Your task to perform on an android device: Search for seafood restaurants on Google Maps Image 0: 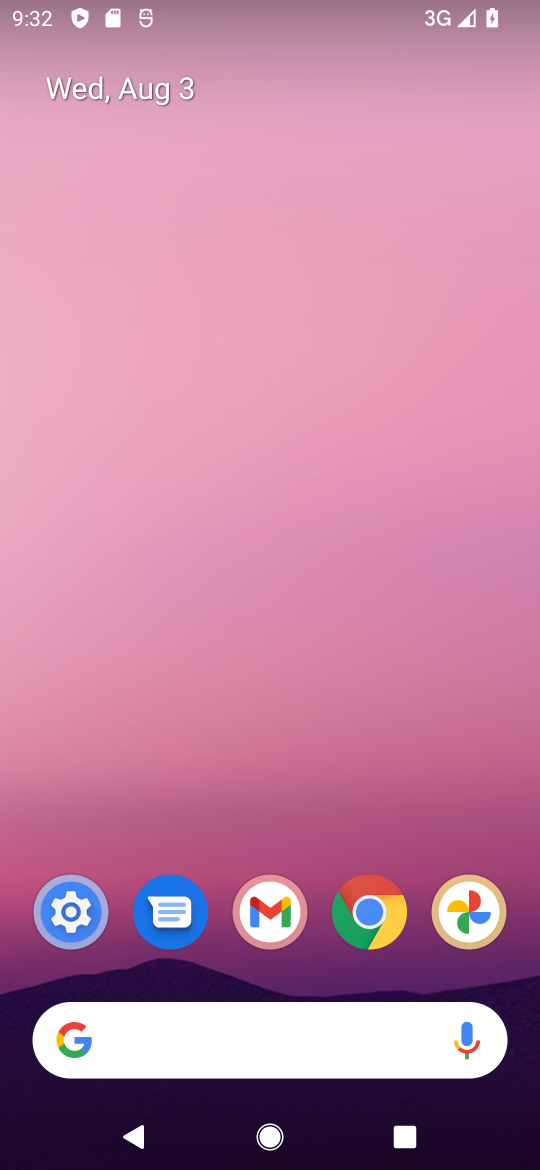
Step 0: drag from (373, 807) to (164, 1)
Your task to perform on an android device: Search for seafood restaurants on Google Maps Image 1: 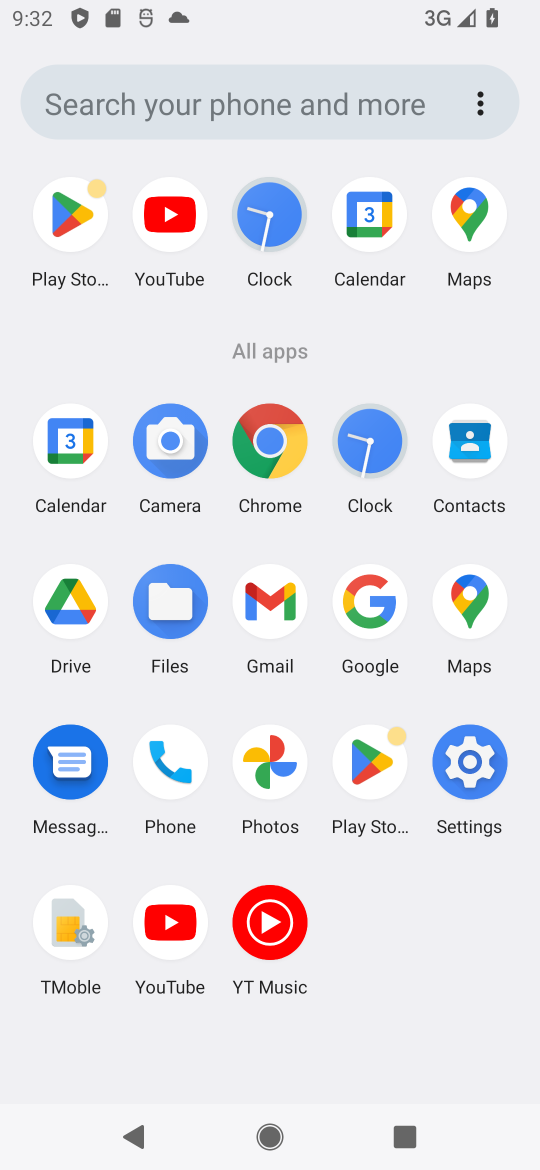
Step 1: click (458, 623)
Your task to perform on an android device: Search for seafood restaurants on Google Maps Image 2: 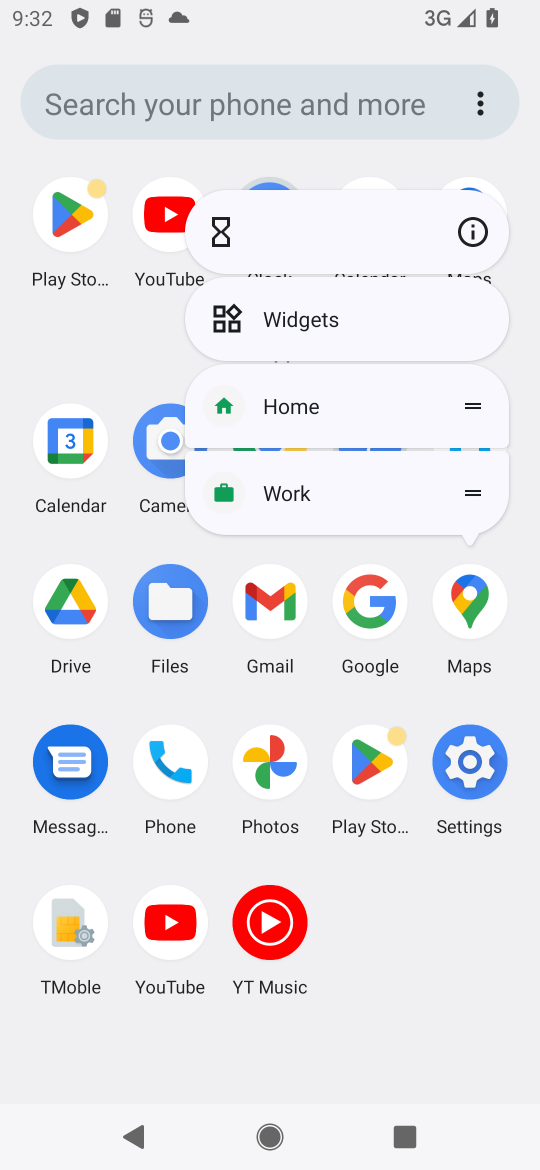
Step 2: click (458, 622)
Your task to perform on an android device: Search for seafood restaurants on Google Maps Image 3: 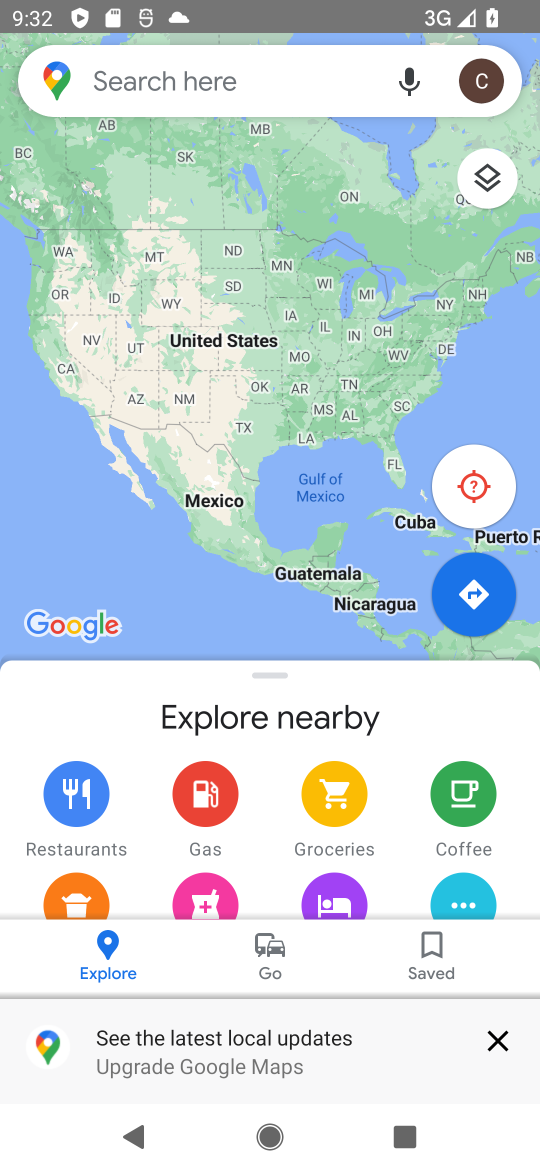
Step 3: click (194, 90)
Your task to perform on an android device: Search for seafood restaurants on Google Maps Image 4: 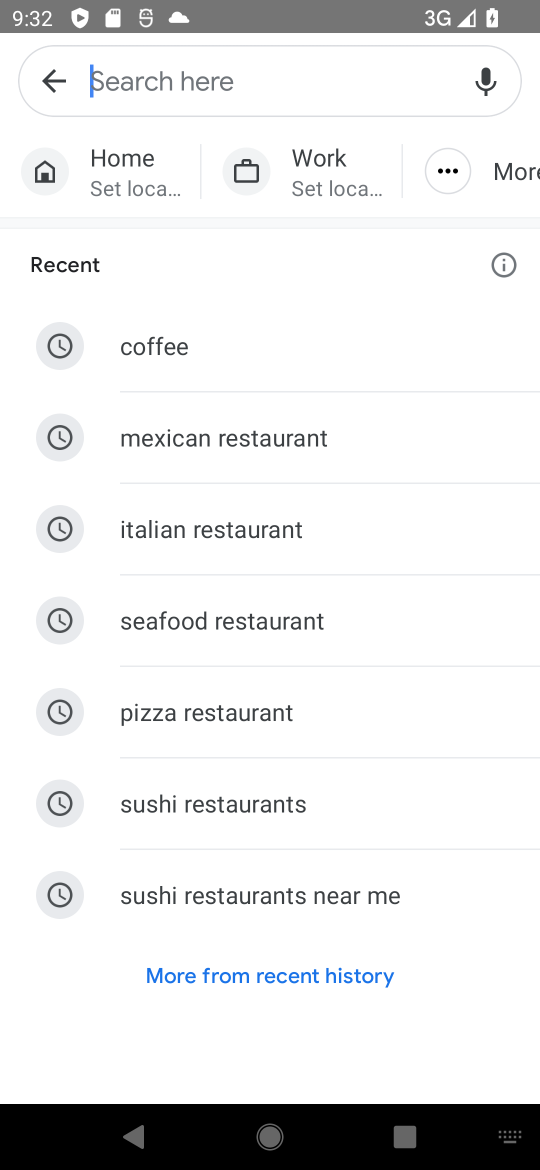
Step 4: click (200, 628)
Your task to perform on an android device: Search for seafood restaurants on Google Maps Image 5: 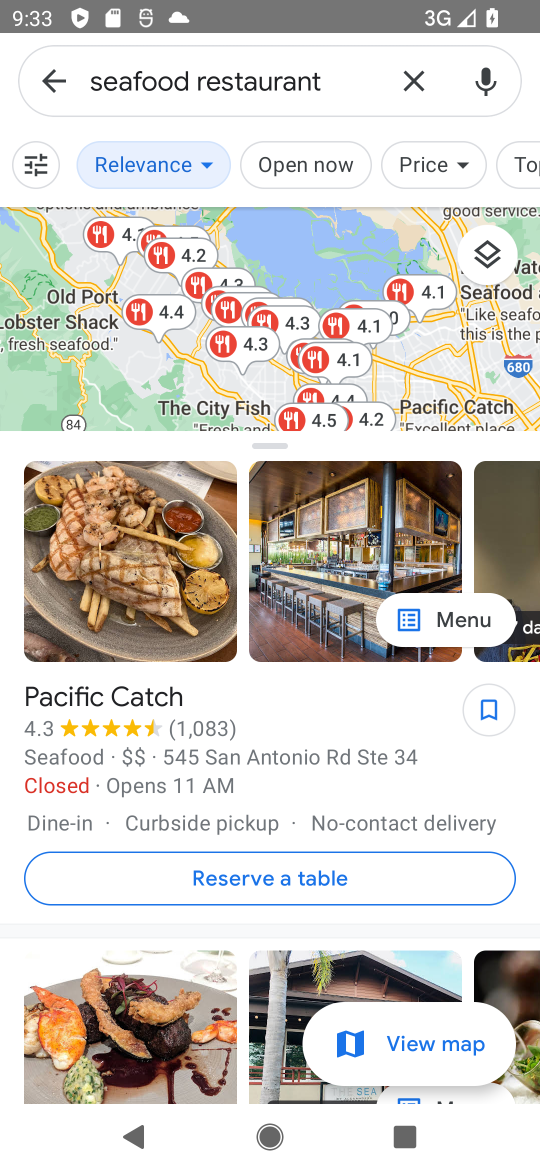
Step 5: task complete